Your task to perform on an android device: search for starred emails in the gmail app Image 0: 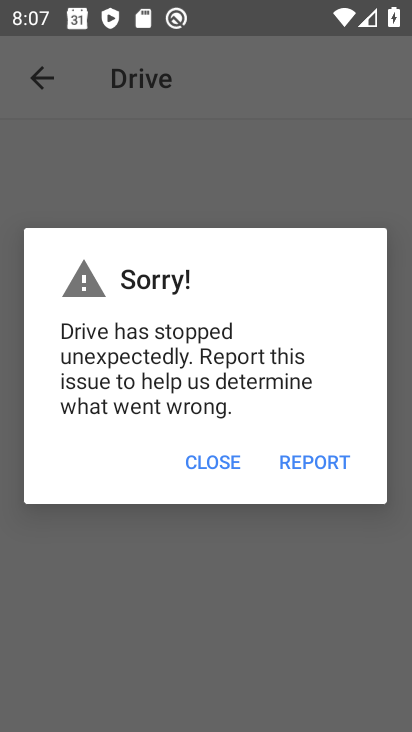
Step 0: press back button
Your task to perform on an android device: search for starred emails in the gmail app Image 1: 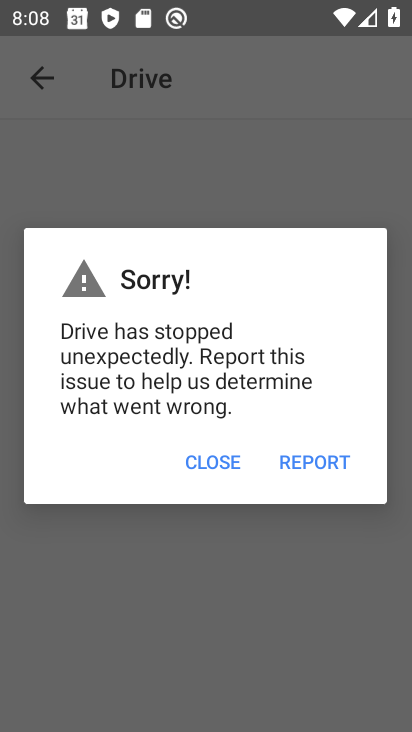
Step 1: press home button
Your task to perform on an android device: search for starred emails in the gmail app Image 2: 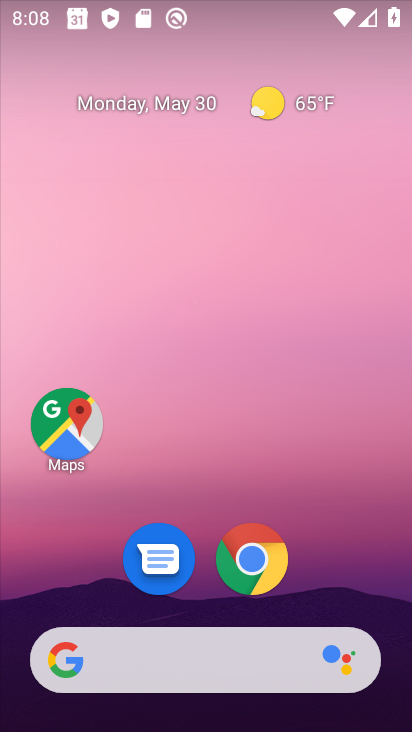
Step 2: drag from (210, 489) to (237, 13)
Your task to perform on an android device: search for starred emails in the gmail app Image 3: 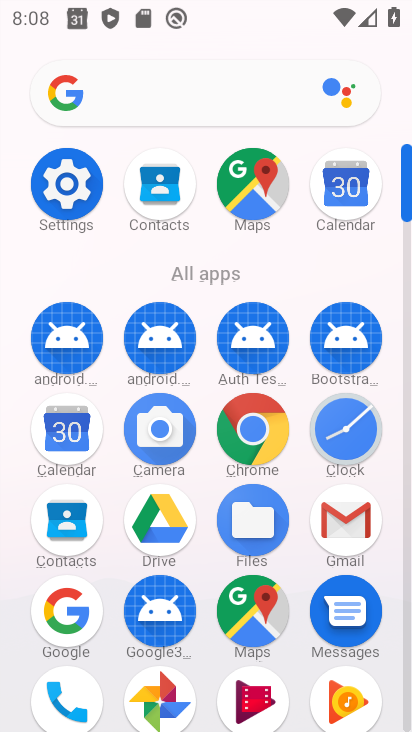
Step 3: click (332, 521)
Your task to perform on an android device: search for starred emails in the gmail app Image 4: 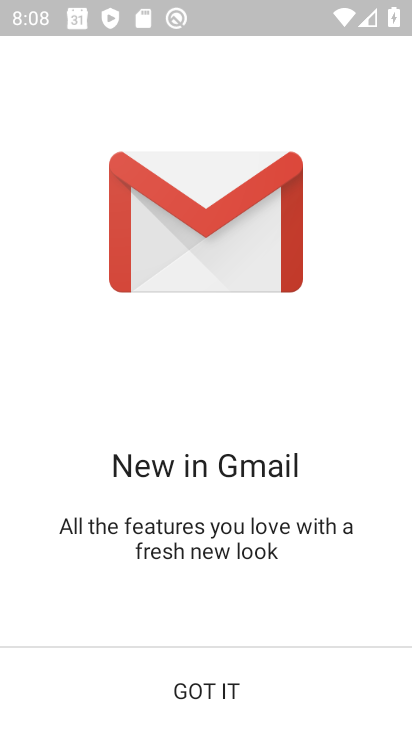
Step 4: click (260, 697)
Your task to perform on an android device: search for starred emails in the gmail app Image 5: 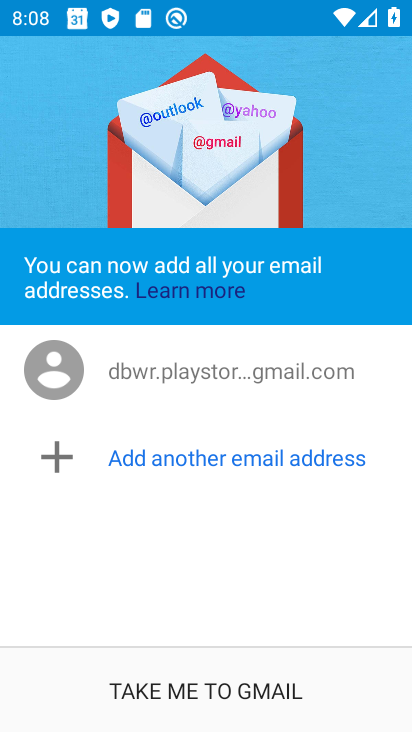
Step 5: click (248, 691)
Your task to perform on an android device: search for starred emails in the gmail app Image 6: 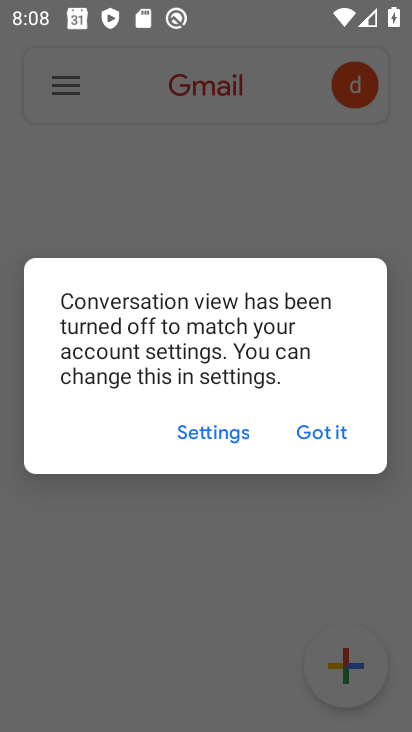
Step 6: click (317, 422)
Your task to perform on an android device: search for starred emails in the gmail app Image 7: 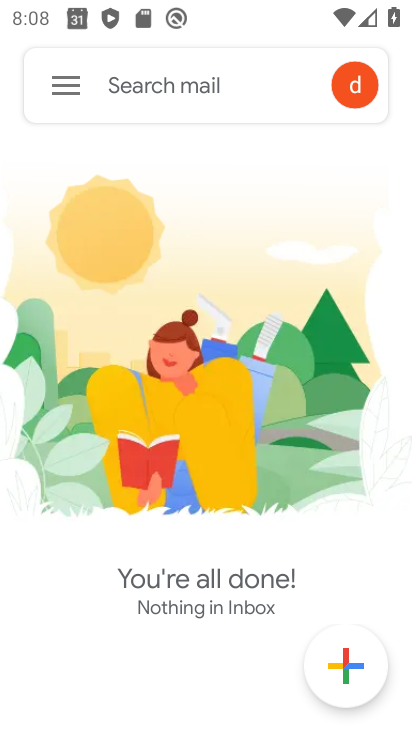
Step 7: click (57, 81)
Your task to perform on an android device: search for starred emails in the gmail app Image 8: 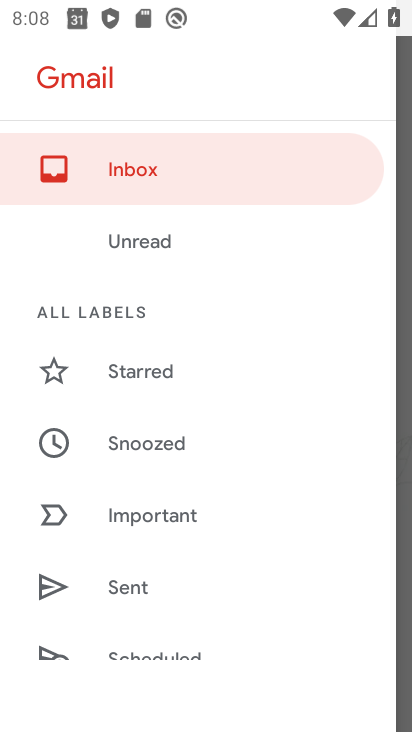
Step 8: drag from (144, 607) to (227, 165)
Your task to perform on an android device: search for starred emails in the gmail app Image 9: 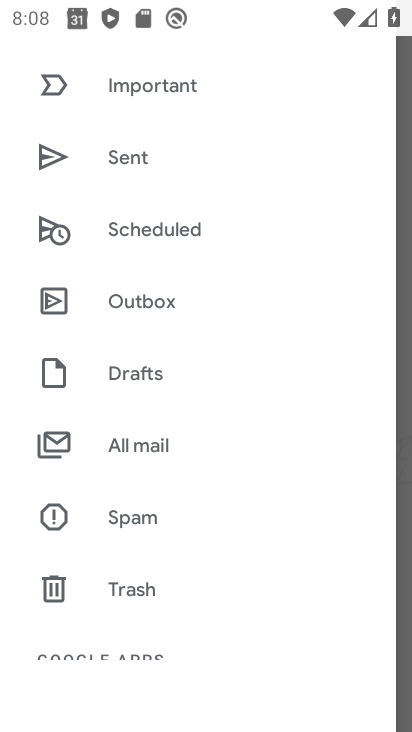
Step 9: drag from (162, 110) to (171, 439)
Your task to perform on an android device: search for starred emails in the gmail app Image 10: 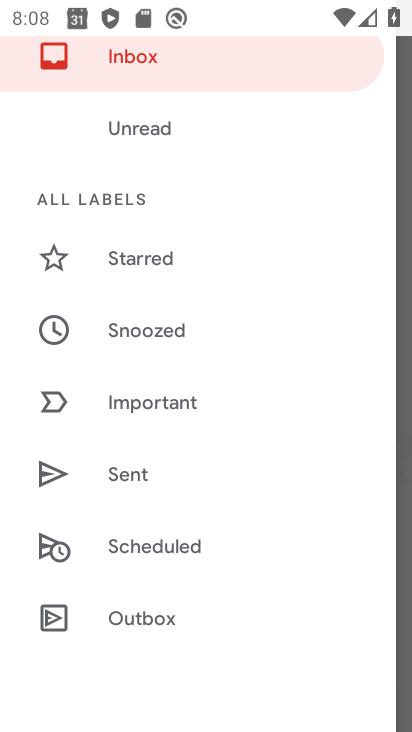
Step 10: click (143, 241)
Your task to perform on an android device: search for starred emails in the gmail app Image 11: 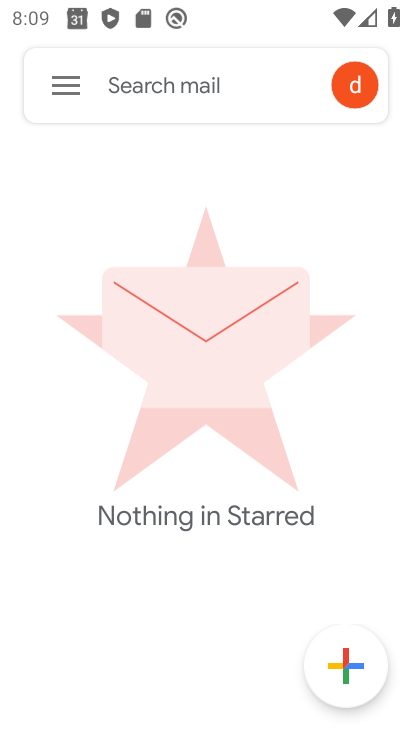
Step 11: task complete